Your task to perform on an android device: Open Youtube and go to "Your channel" Image 0: 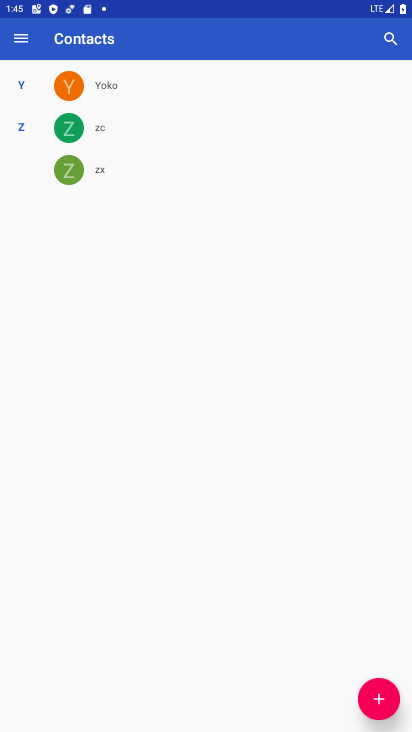
Step 0: press home button
Your task to perform on an android device: Open Youtube and go to "Your channel" Image 1: 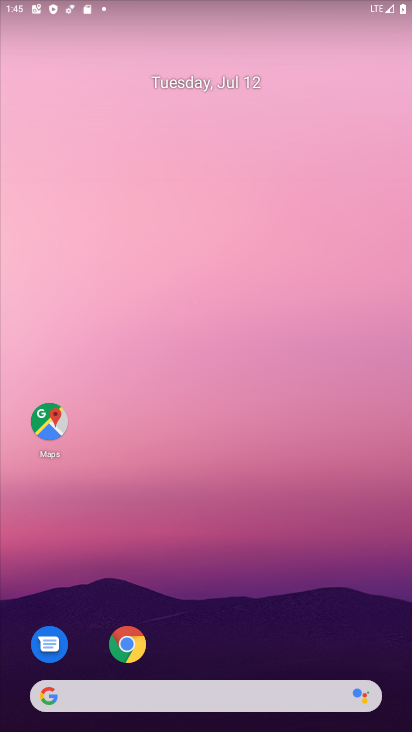
Step 1: drag from (179, 660) to (180, 125)
Your task to perform on an android device: Open Youtube and go to "Your channel" Image 2: 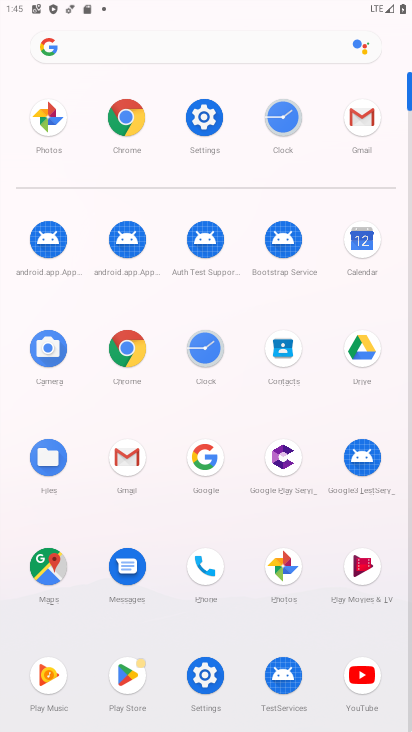
Step 2: click (348, 662)
Your task to perform on an android device: Open Youtube and go to "Your channel" Image 3: 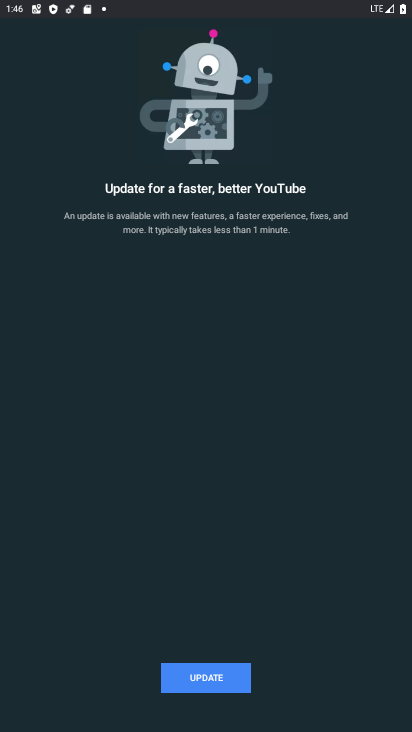
Step 3: click (210, 668)
Your task to perform on an android device: Open Youtube and go to "Your channel" Image 4: 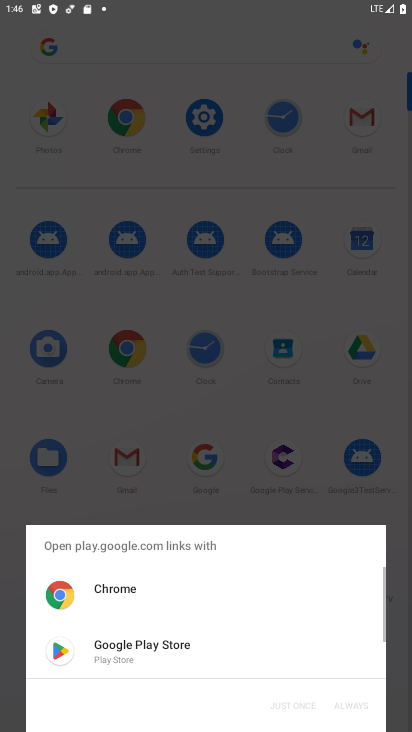
Step 4: click (99, 649)
Your task to perform on an android device: Open Youtube and go to "Your channel" Image 5: 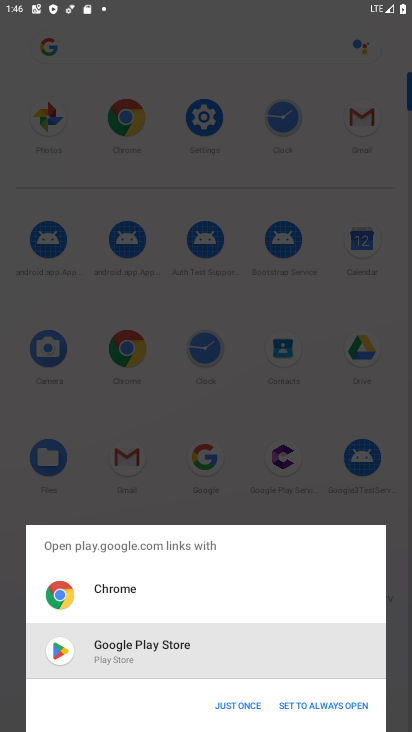
Step 5: click (246, 701)
Your task to perform on an android device: Open Youtube and go to "Your channel" Image 6: 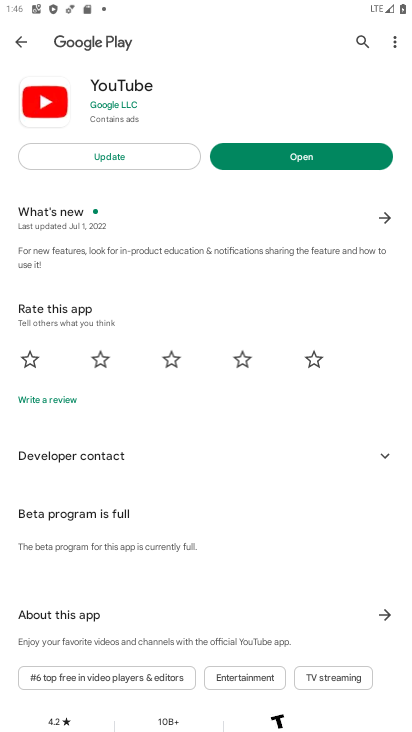
Step 6: click (295, 155)
Your task to perform on an android device: Open Youtube and go to "Your channel" Image 7: 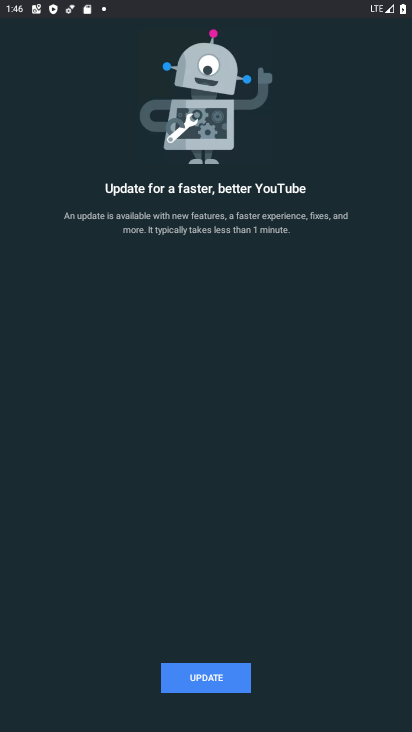
Step 7: click (138, 676)
Your task to perform on an android device: Open Youtube and go to "Your channel" Image 8: 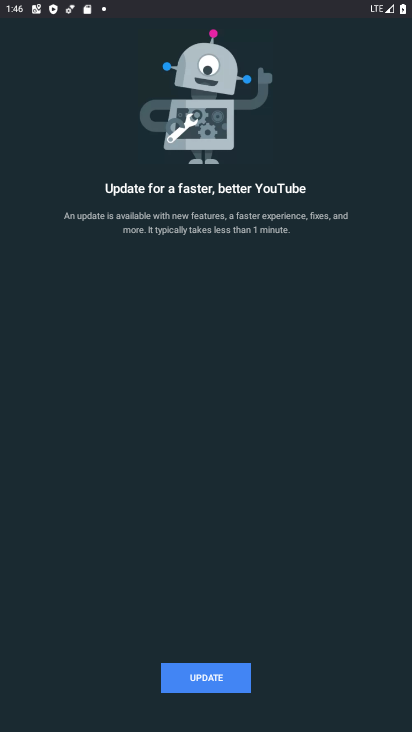
Step 8: click (168, 672)
Your task to perform on an android device: Open Youtube and go to "Your channel" Image 9: 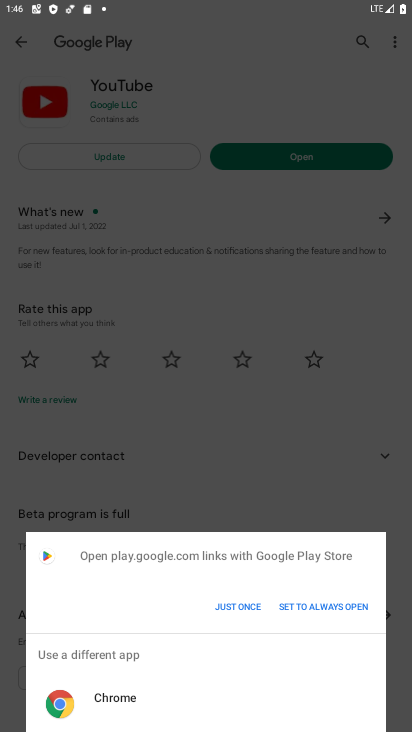
Step 9: drag from (319, 603) to (94, 619)
Your task to perform on an android device: Open Youtube and go to "Your channel" Image 10: 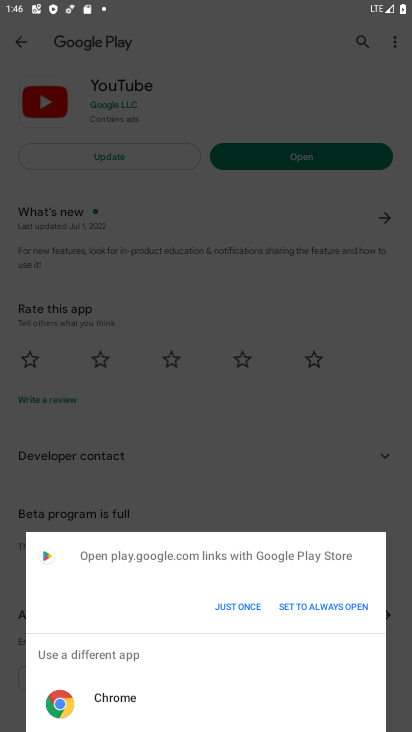
Step 10: click (223, 613)
Your task to perform on an android device: Open Youtube and go to "Your channel" Image 11: 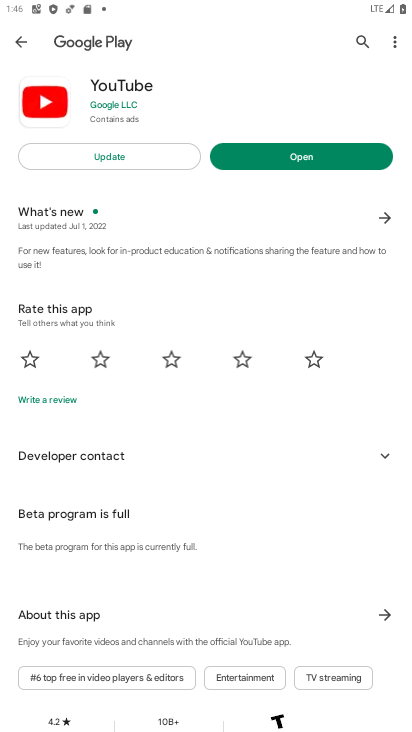
Step 11: click (140, 146)
Your task to perform on an android device: Open Youtube and go to "Your channel" Image 12: 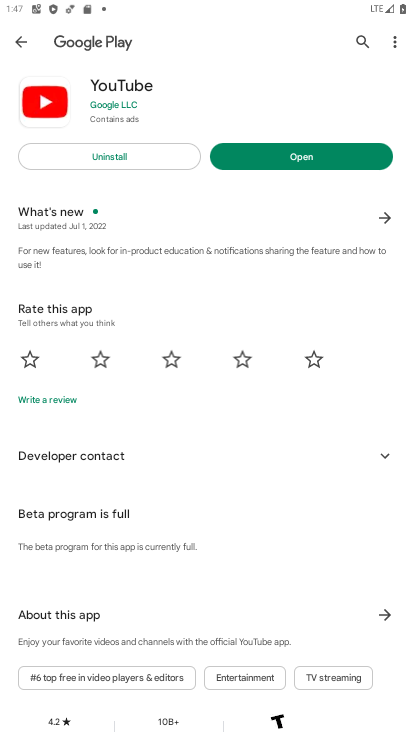
Step 12: click (265, 157)
Your task to perform on an android device: Open Youtube and go to "Your channel" Image 13: 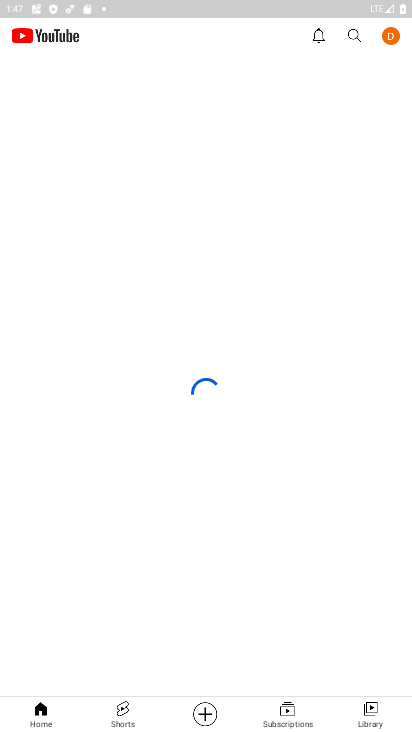
Step 13: click (368, 703)
Your task to perform on an android device: Open Youtube and go to "Your channel" Image 14: 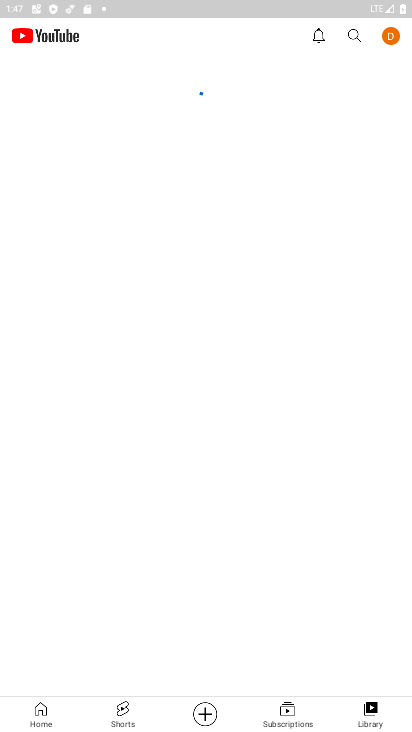
Step 14: click (385, 35)
Your task to perform on an android device: Open Youtube and go to "Your channel" Image 15: 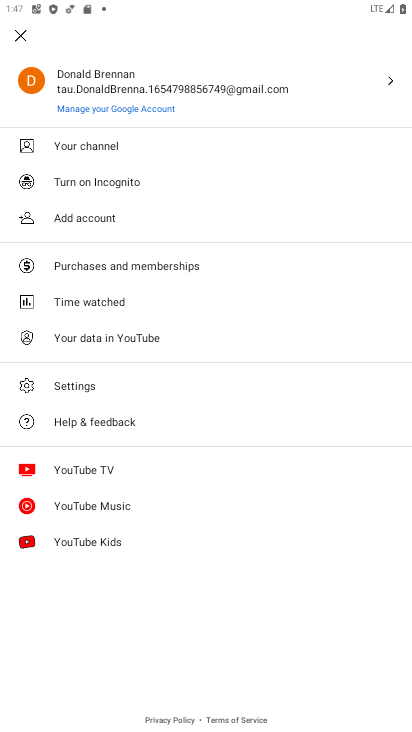
Step 15: click (82, 150)
Your task to perform on an android device: Open Youtube and go to "Your channel" Image 16: 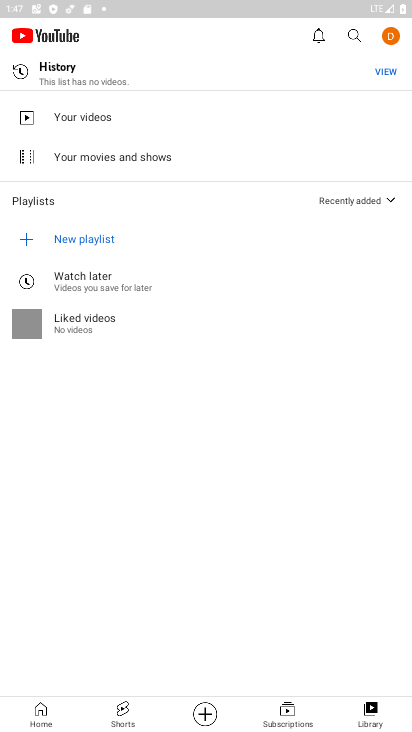
Step 16: task complete